Your task to perform on an android device: remove spam from my inbox in the gmail app Image 0: 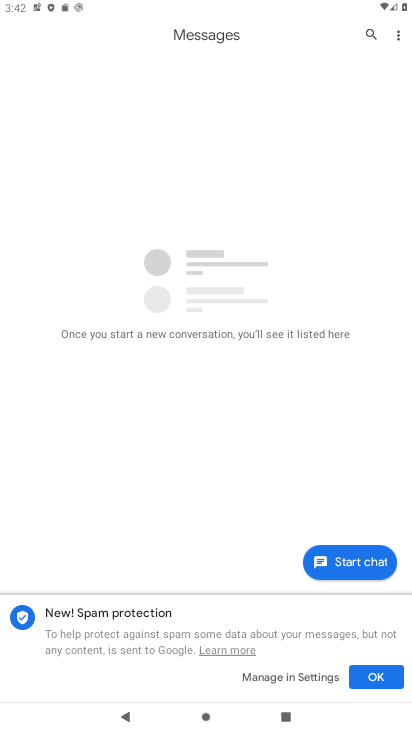
Step 0: press home button
Your task to perform on an android device: remove spam from my inbox in the gmail app Image 1: 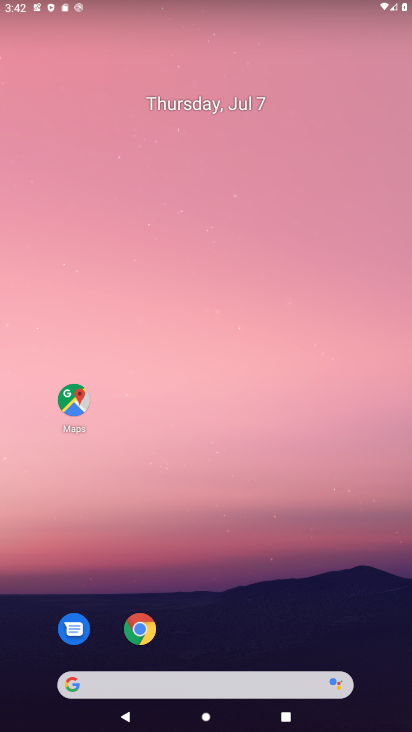
Step 1: drag from (227, 611) to (212, 274)
Your task to perform on an android device: remove spam from my inbox in the gmail app Image 2: 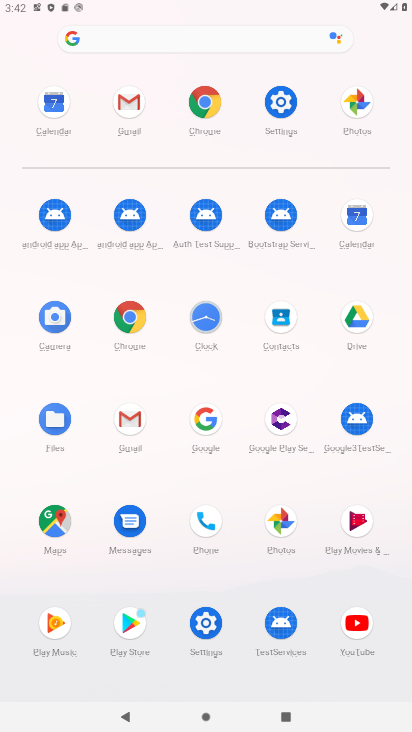
Step 2: click (128, 108)
Your task to perform on an android device: remove spam from my inbox in the gmail app Image 3: 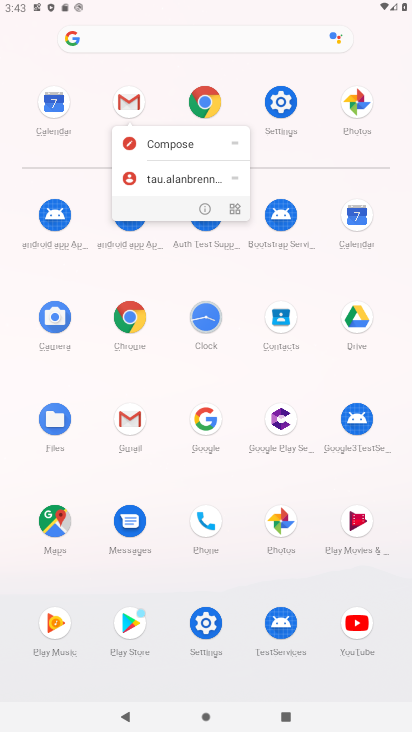
Step 3: click (122, 103)
Your task to perform on an android device: remove spam from my inbox in the gmail app Image 4: 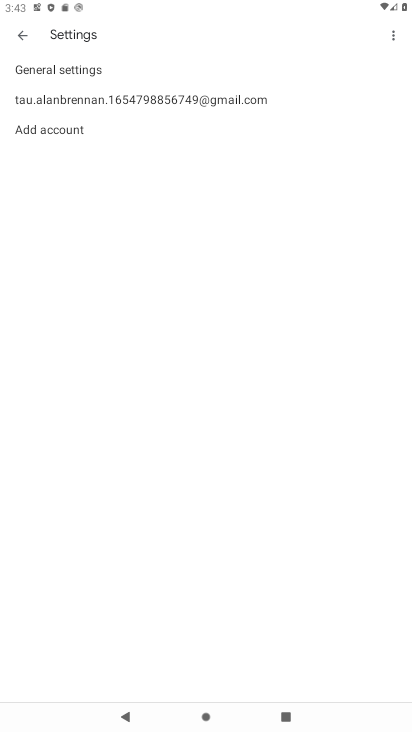
Step 4: click (58, 67)
Your task to perform on an android device: remove spam from my inbox in the gmail app Image 5: 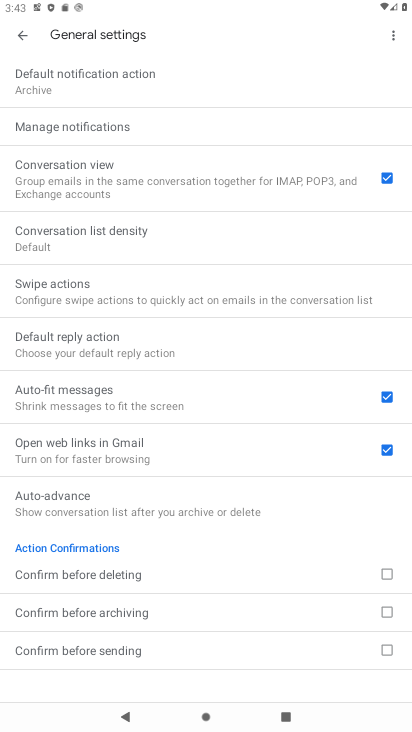
Step 5: click (34, 40)
Your task to perform on an android device: remove spam from my inbox in the gmail app Image 6: 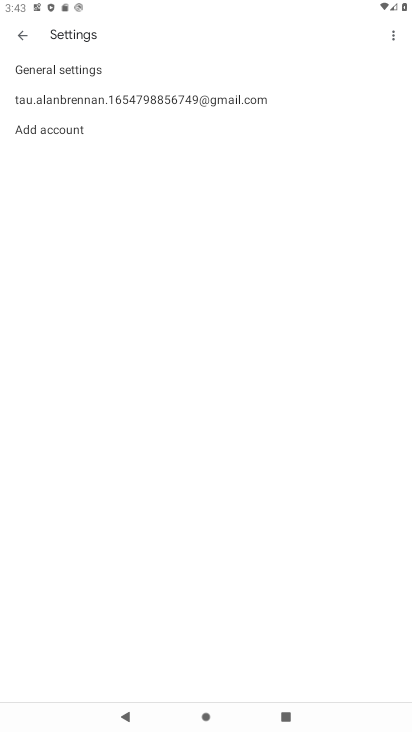
Step 6: click (18, 24)
Your task to perform on an android device: remove spam from my inbox in the gmail app Image 7: 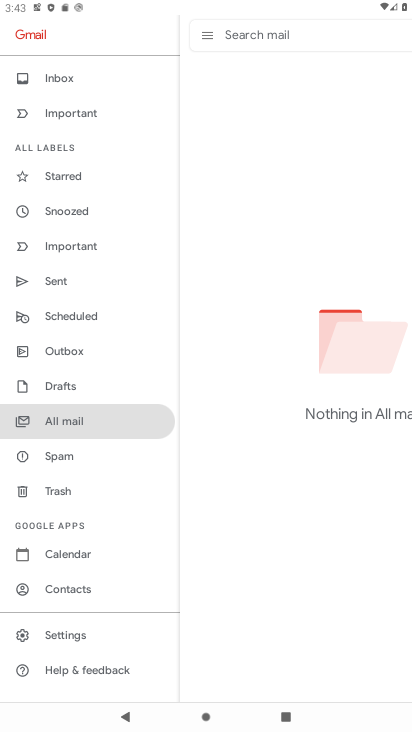
Step 7: click (75, 457)
Your task to perform on an android device: remove spam from my inbox in the gmail app Image 8: 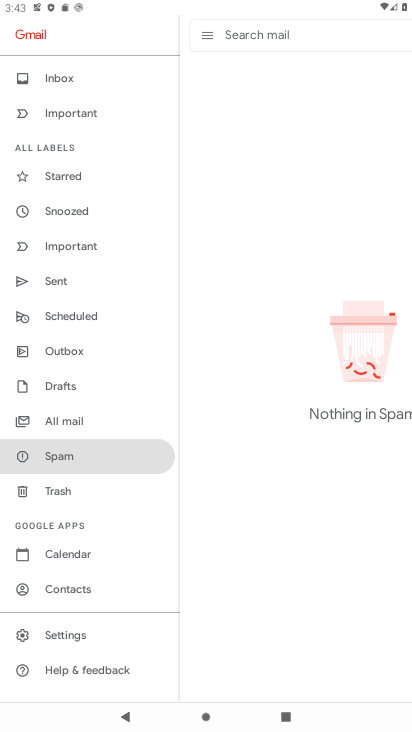
Step 8: click (84, 446)
Your task to perform on an android device: remove spam from my inbox in the gmail app Image 9: 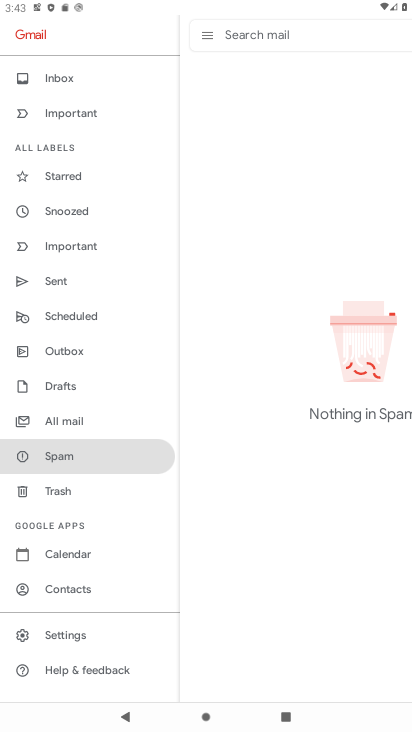
Step 9: task complete